Your task to perform on an android device: change the clock style Image 0: 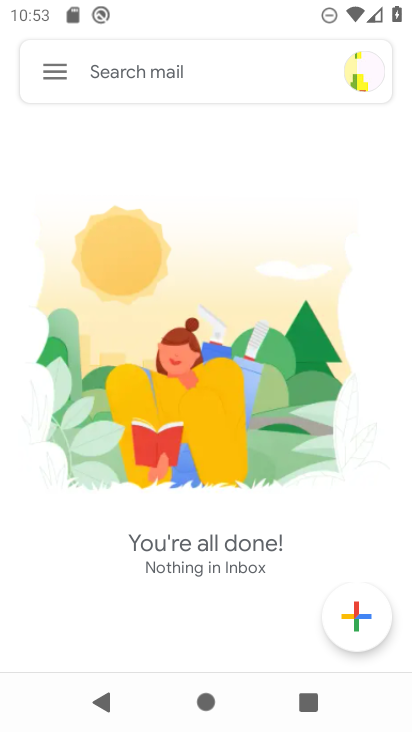
Step 0: press home button
Your task to perform on an android device: change the clock style Image 1: 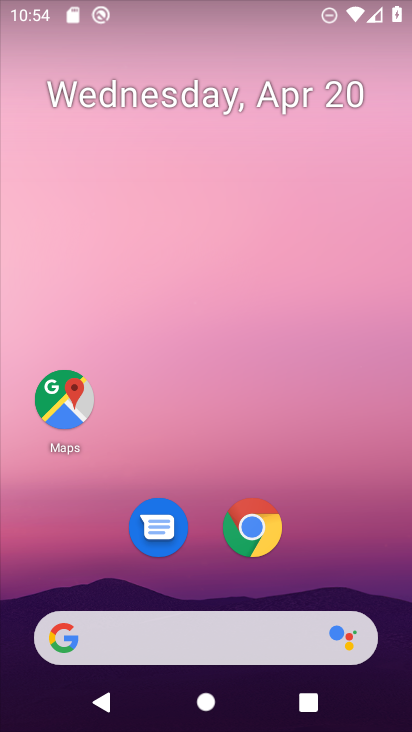
Step 1: drag from (193, 556) to (185, 17)
Your task to perform on an android device: change the clock style Image 2: 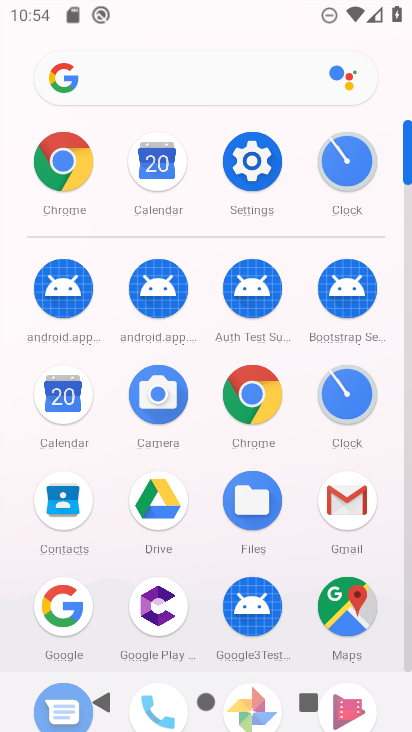
Step 2: click (360, 396)
Your task to perform on an android device: change the clock style Image 3: 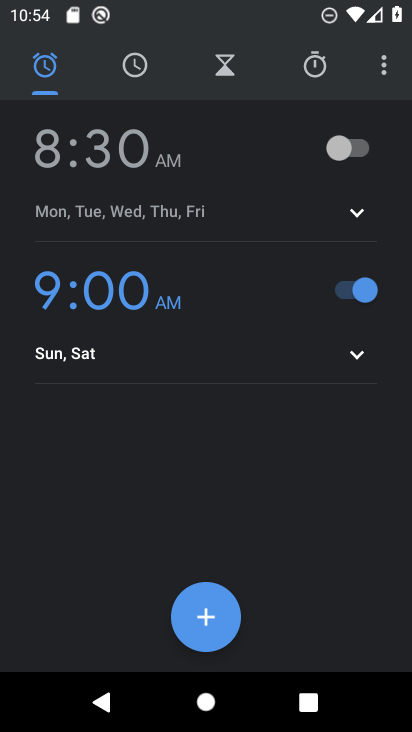
Step 3: click (383, 69)
Your task to perform on an android device: change the clock style Image 4: 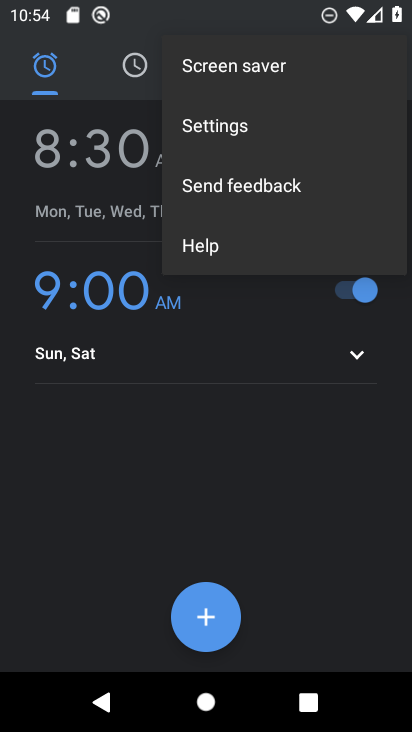
Step 4: click (206, 123)
Your task to perform on an android device: change the clock style Image 5: 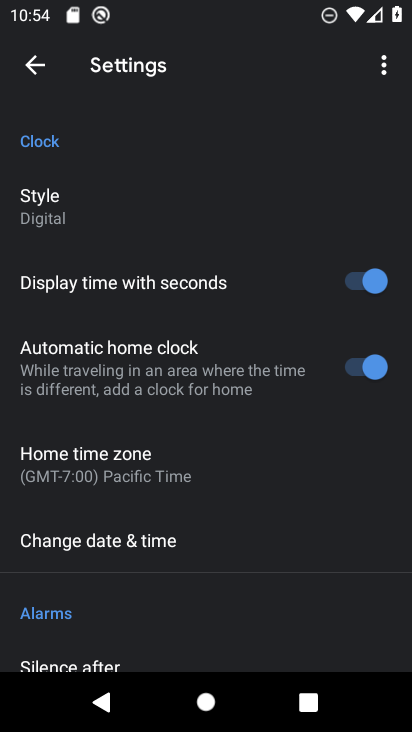
Step 5: click (60, 215)
Your task to perform on an android device: change the clock style Image 6: 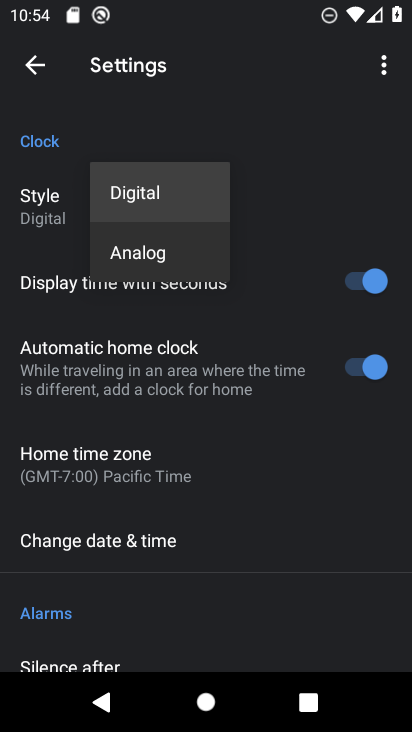
Step 6: click (169, 248)
Your task to perform on an android device: change the clock style Image 7: 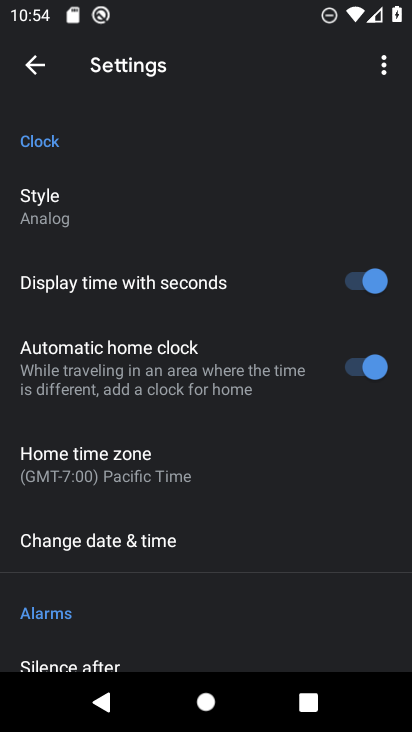
Step 7: task complete